Your task to perform on an android device: What's the weather going to be this weekend? Image 0: 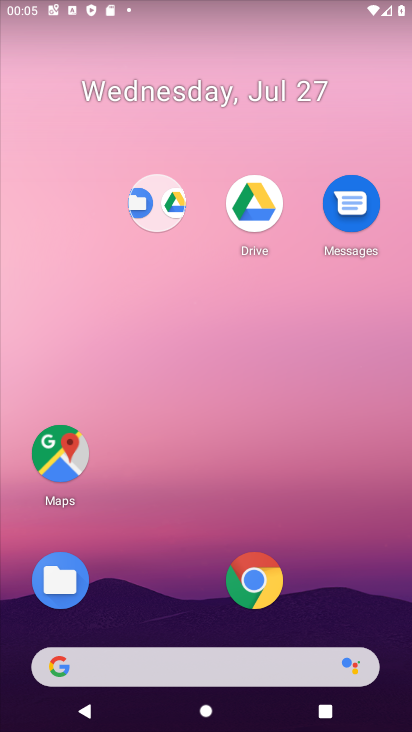
Step 0: click (108, 669)
Your task to perform on an android device: What's the weather going to be this weekend? Image 1: 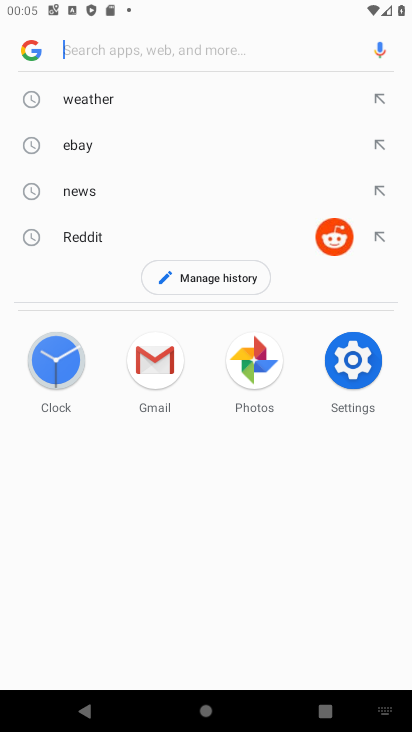
Step 1: click (117, 100)
Your task to perform on an android device: What's the weather going to be this weekend? Image 2: 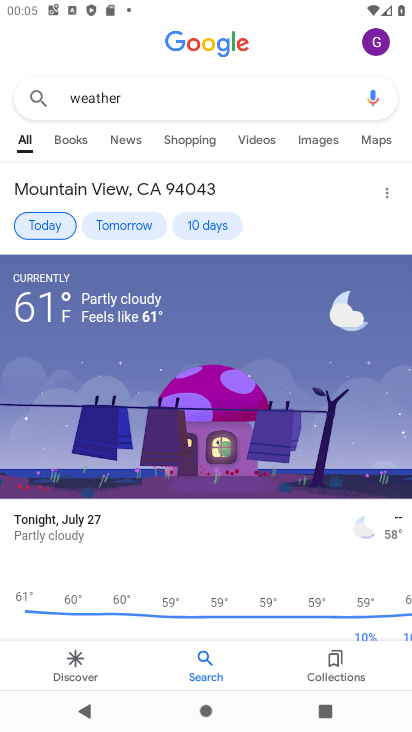
Step 2: click (235, 218)
Your task to perform on an android device: What's the weather going to be this weekend? Image 3: 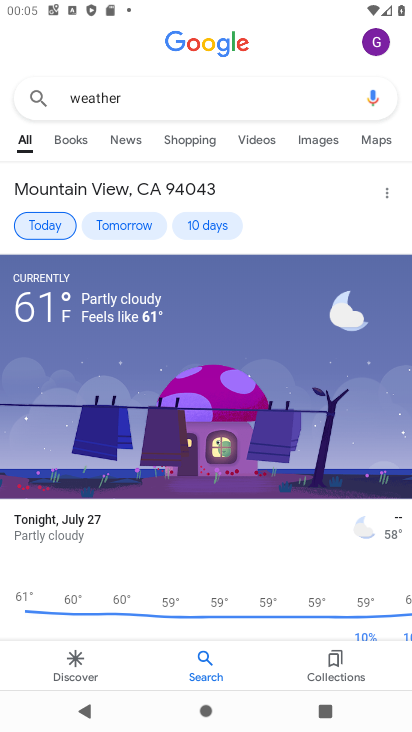
Step 3: click (235, 218)
Your task to perform on an android device: What's the weather going to be this weekend? Image 4: 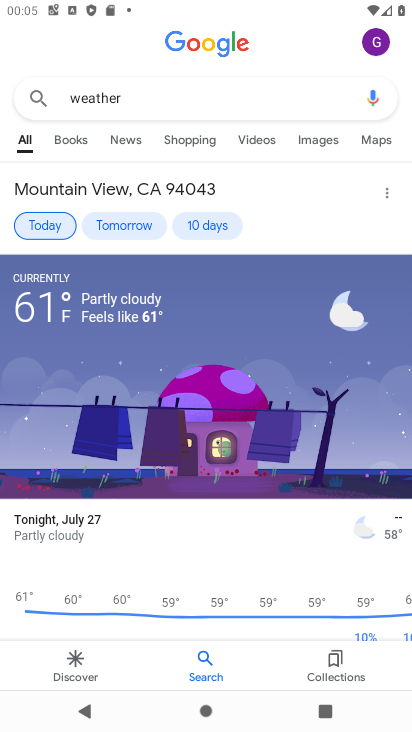
Step 4: click (235, 218)
Your task to perform on an android device: What's the weather going to be this weekend? Image 5: 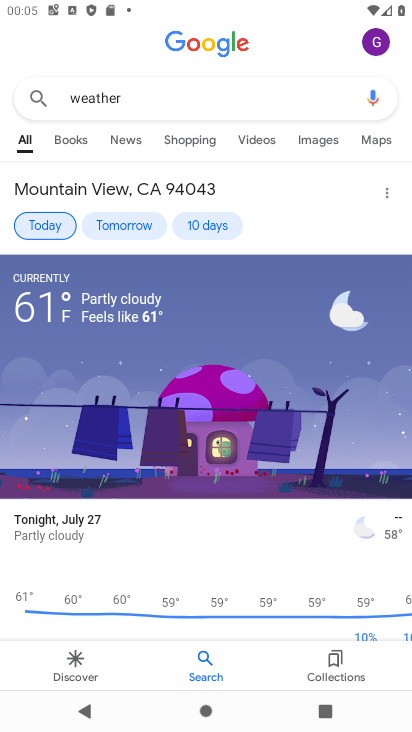
Step 5: click (235, 218)
Your task to perform on an android device: What's the weather going to be this weekend? Image 6: 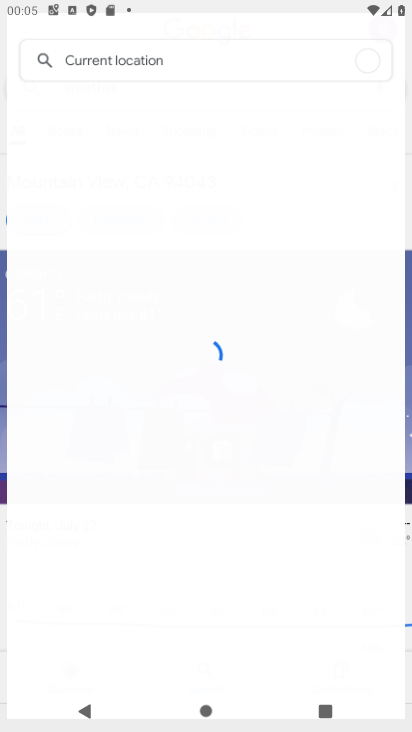
Step 6: click (235, 218)
Your task to perform on an android device: What's the weather going to be this weekend? Image 7: 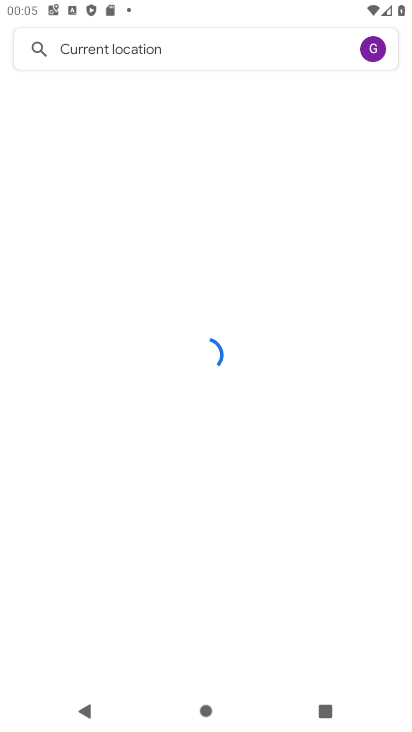
Step 7: click (216, 223)
Your task to perform on an android device: What's the weather going to be this weekend? Image 8: 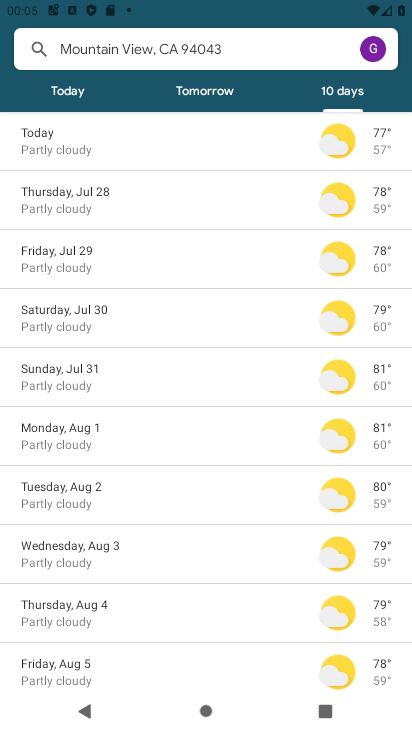
Step 8: click (271, 307)
Your task to perform on an android device: What's the weather going to be this weekend? Image 9: 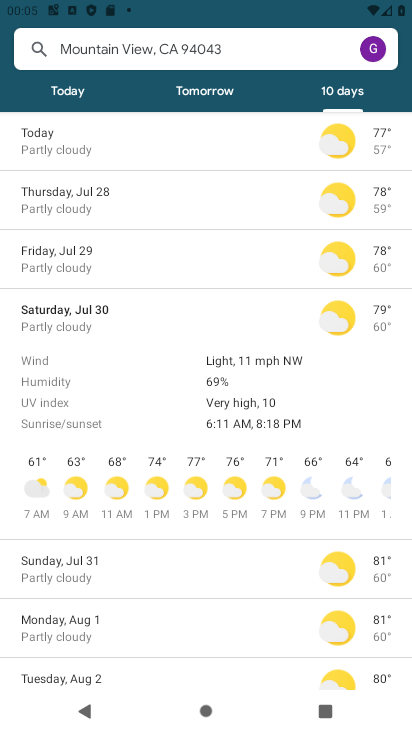
Step 9: task complete